Your task to perform on an android device: Is it going to rain tomorrow? Image 0: 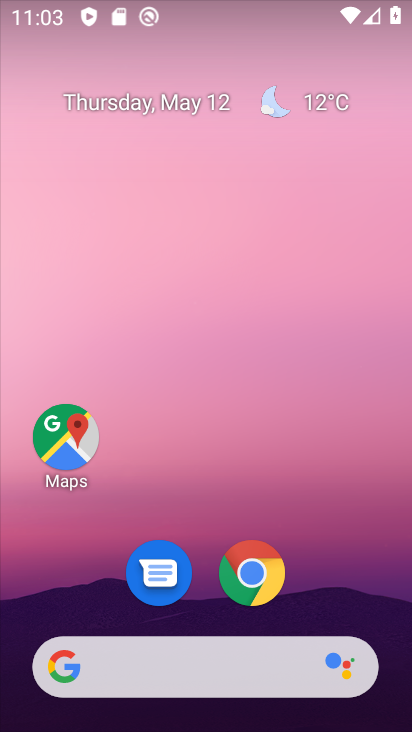
Step 0: press home button
Your task to perform on an android device: Is it going to rain tomorrow? Image 1: 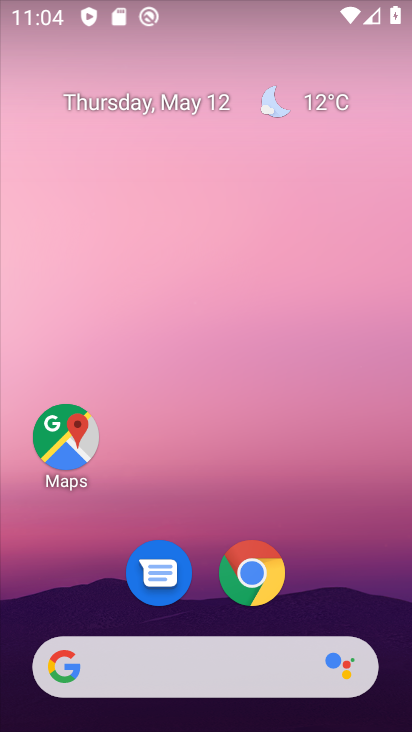
Step 1: drag from (18, 719) to (198, 731)
Your task to perform on an android device: Is it going to rain tomorrow? Image 2: 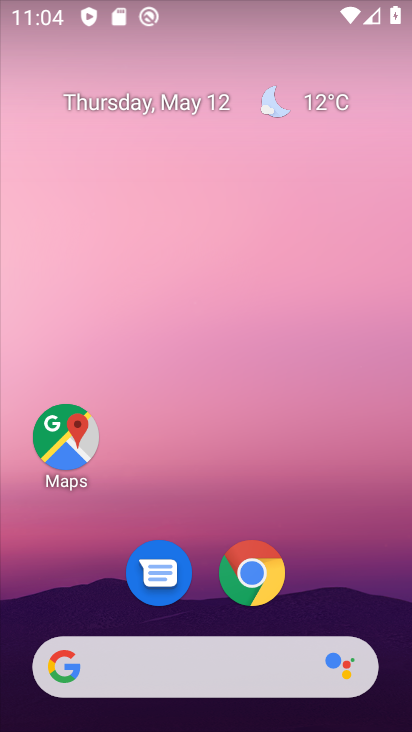
Step 2: click (260, 575)
Your task to perform on an android device: Is it going to rain tomorrow? Image 3: 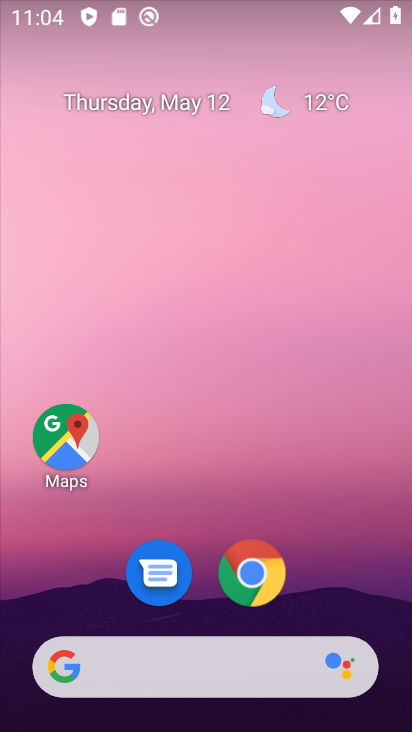
Step 3: click (260, 575)
Your task to perform on an android device: Is it going to rain tomorrow? Image 4: 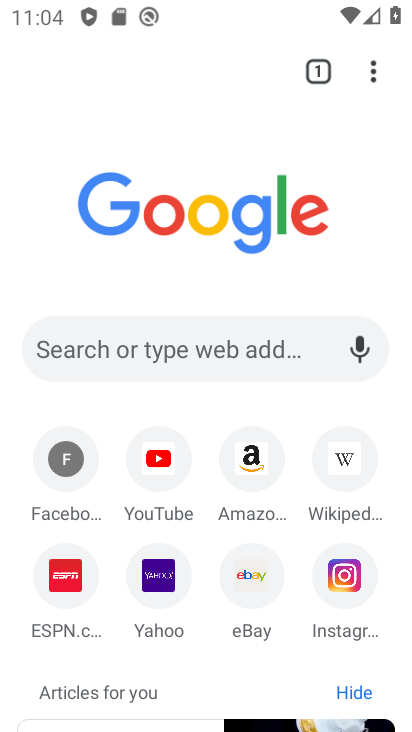
Step 4: click (227, 355)
Your task to perform on an android device: Is it going to rain tomorrow? Image 5: 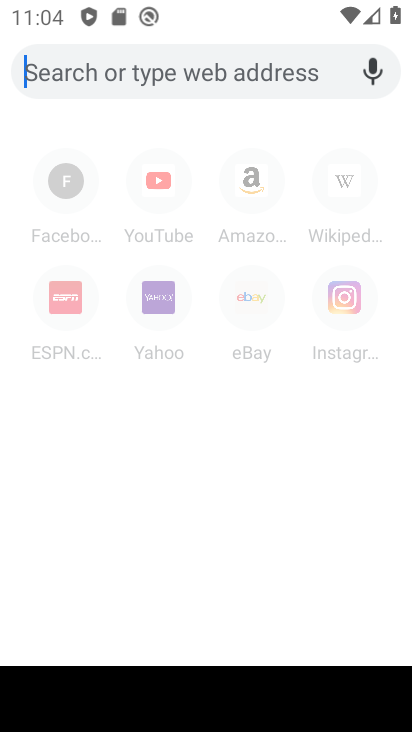
Step 5: type "Is it going to rain tomorrow?"
Your task to perform on an android device: Is it going to rain tomorrow? Image 6: 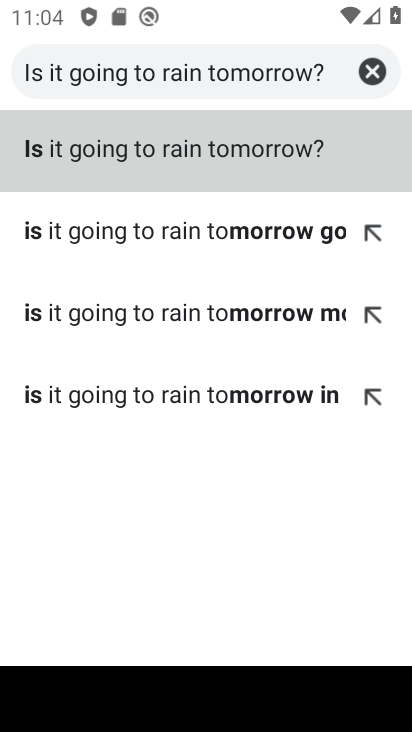
Step 6: click (90, 130)
Your task to perform on an android device: Is it going to rain tomorrow? Image 7: 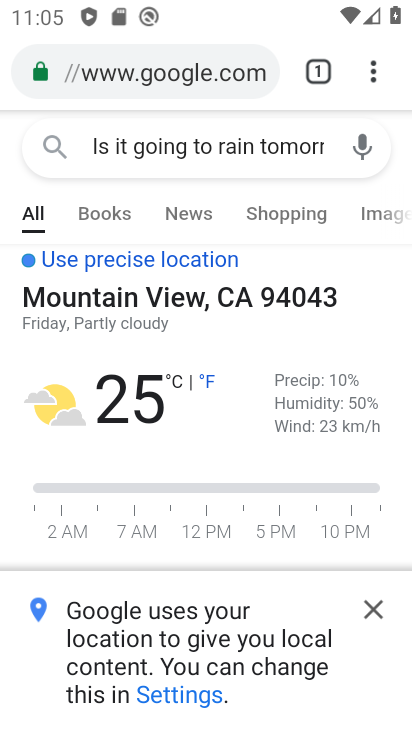
Step 7: task complete